Your task to perform on an android device: Open Google Chrome Image 0: 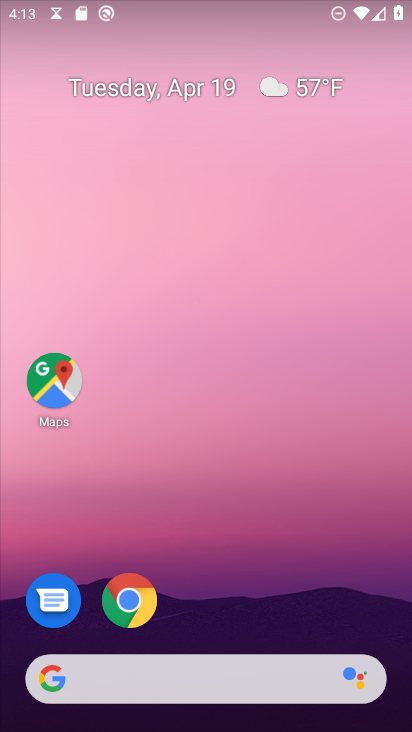
Step 0: drag from (358, 548) to (326, 182)
Your task to perform on an android device: Open Google Chrome Image 1: 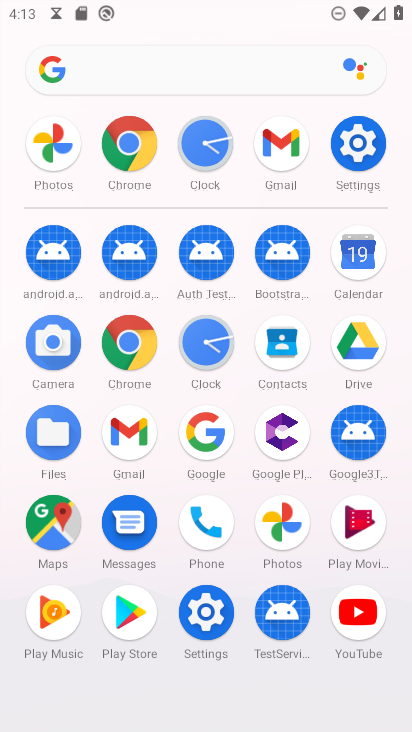
Step 1: click (130, 157)
Your task to perform on an android device: Open Google Chrome Image 2: 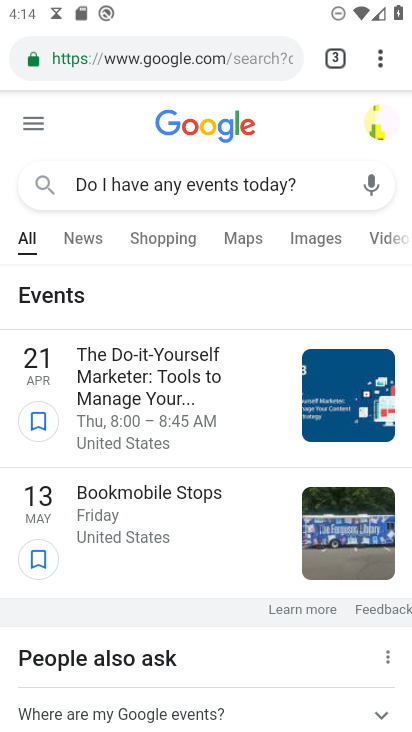
Step 2: task complete